Your task to perform on an android device: Go to ESPN.com Image 0: 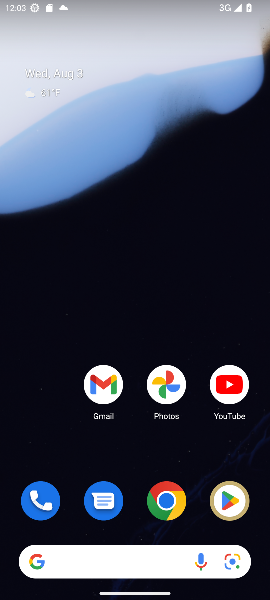
Step 0: click (159, 508)
Your task to perform on an android device: Go to ESPN.com Image 1: 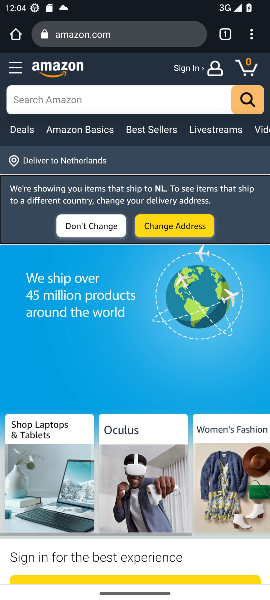
Step 1: click (139, 34)
Your task to perform on an android device: Go to ESPN.com Image 2: 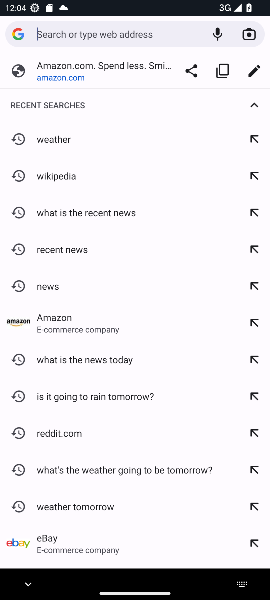
Step 2: type "espn.com"
Your task to perform on an android device: Go to ESPN.com Image 3: 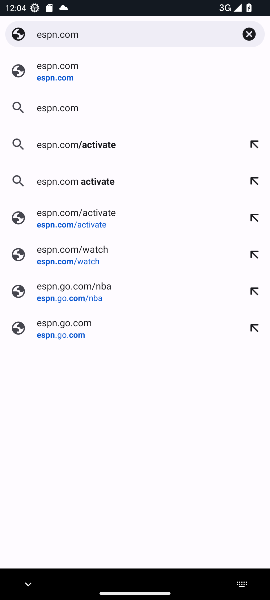
Step 3: click (73, 74)
Your task to perform on an android device: Go to ESPN.com Image 4: 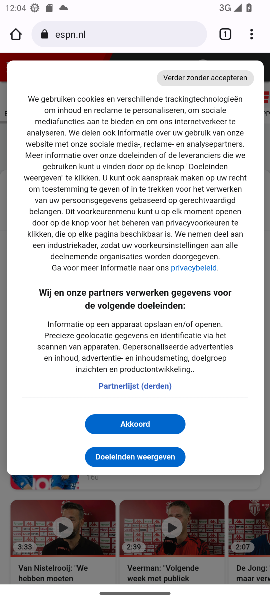
Step 4: task complete